Your task to perform on an android device: turn on improve location accuracy Image 0: 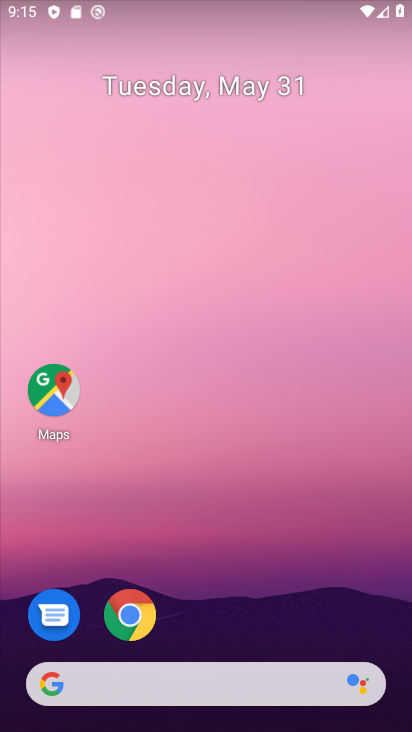
Step 0: drag from (232, 370) to (225, 2)
Your task to perform on an android device: turn on improve location accuracy Image 1: 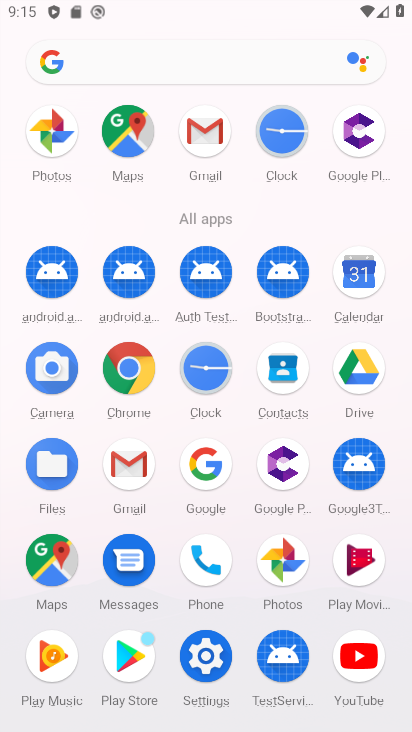
Step 1: click (204, 640)
Your task to perform on an android device: turn on improve location accuracy Image 2: 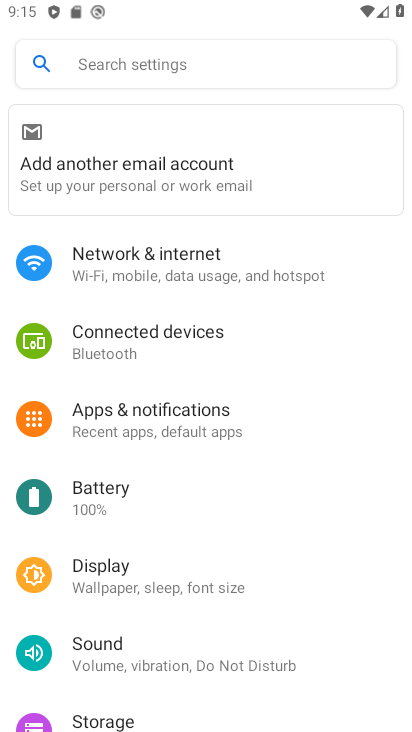
Step 2: drag from (151, 660) to (160, 237)
Your task to perform on an android device: turn on improve location accuracy Image 3: 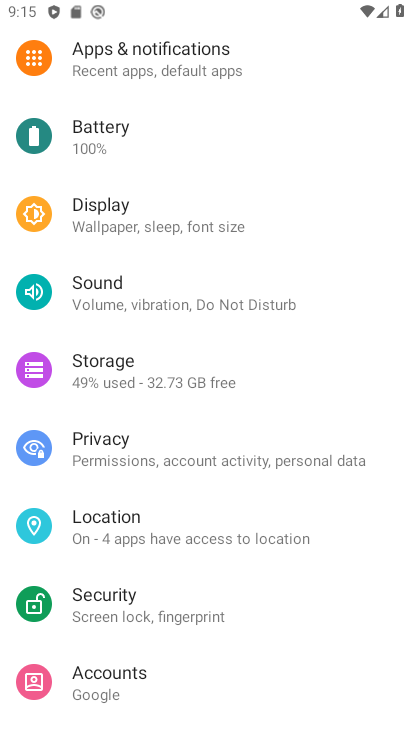
Step 3: click (150, 507)
Your task to perform on an android device: turn on improve location accuracy Image 4: 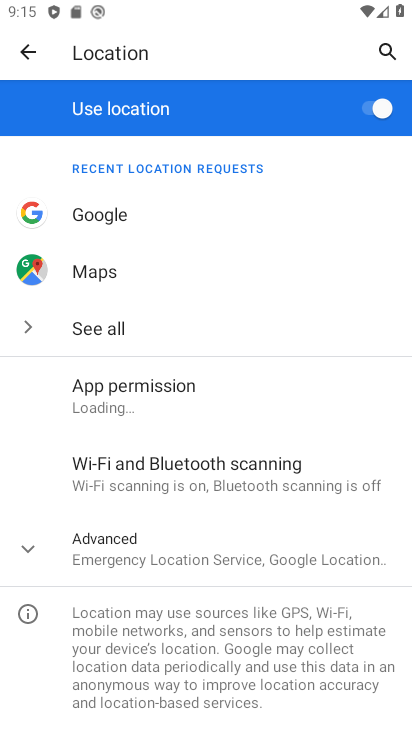
Step 4: click (112, 554)
Your task to perform on an android device: turn on improve location accuracy Image 5: 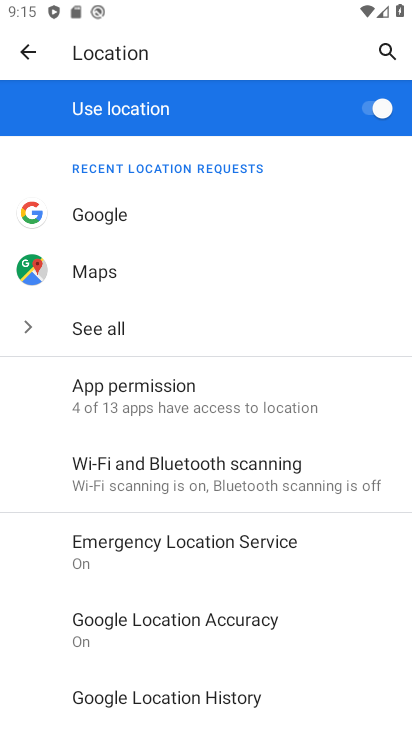
Step 5: click (103, 633)
Your task to perform on an android device: turn on improve location accuracy Image 6: 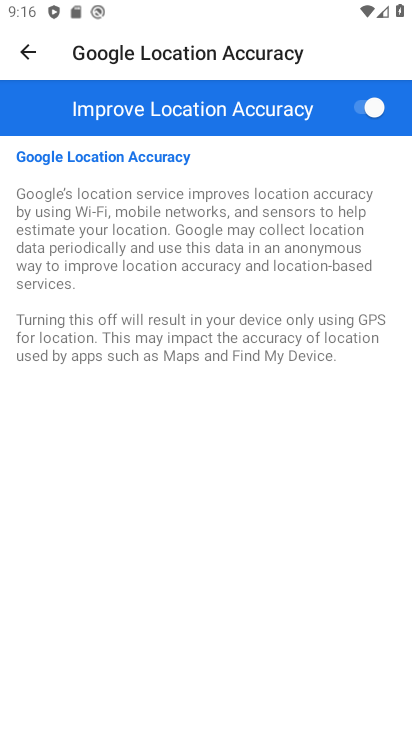
Step 6: task complete